Your task to perform on an android device: turn off airplane mode Image 0: 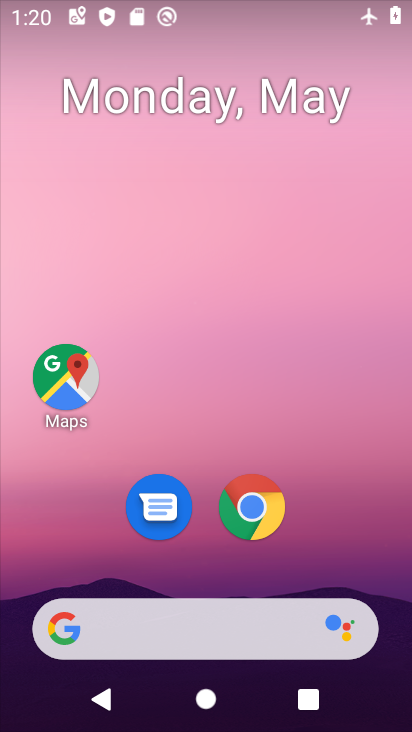
Step 0: drag from (239, 718) to (308, 19)
Your task to perform on an android device: turn off airplane mode Image 1: 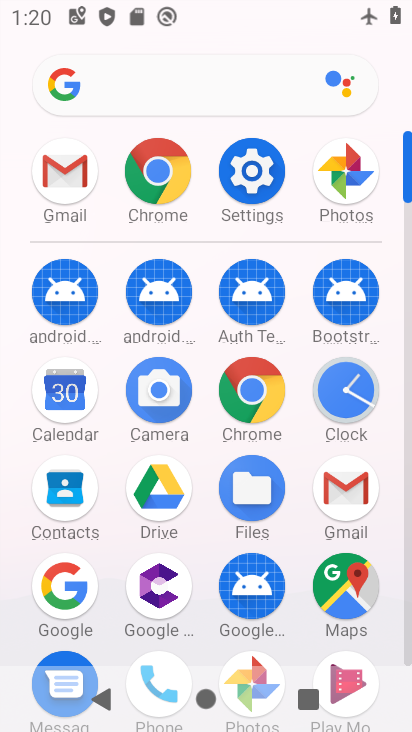
Step 1: click (253, 175)
Your task to perform on an android device: turn off airplane mode Image 2: 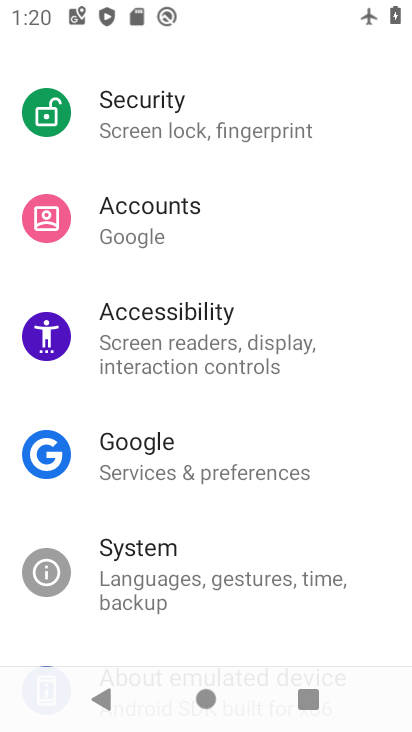
Step 2: drag from (244, 142) to (244, 550)
Your task to perform on an android device: turn off airplane mode Image 3: 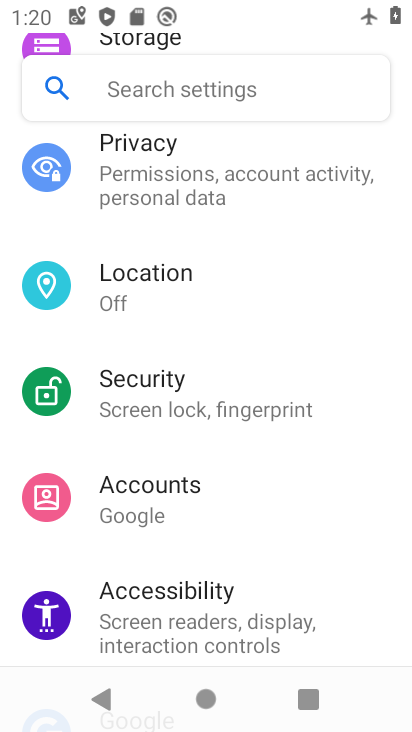
Step 3: drag from (222, 148) to (234, 653)
Your task to perform on an android device: turn off airplane mode Image 4: 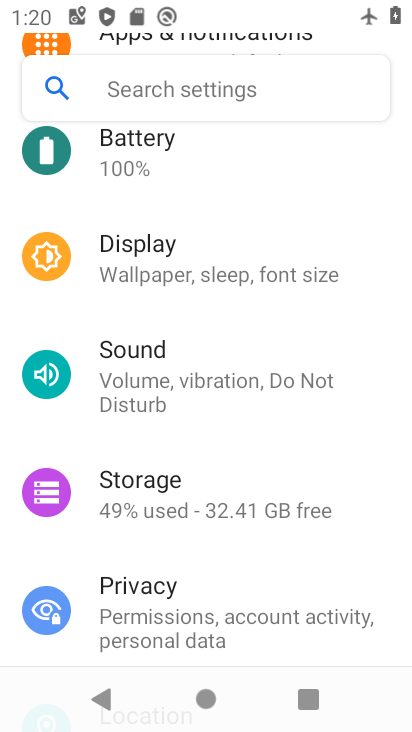
Step 4: drag from (235, 146) to (227, 610)
Your task to perform on an android device: turn off airplane mode Image 5: 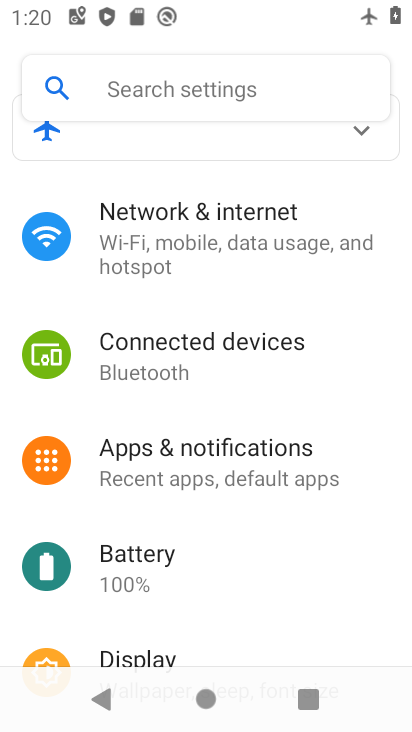
Step 5: click (142, 243)
Your task to perform on an android device: turn off airplane mode Image 6: 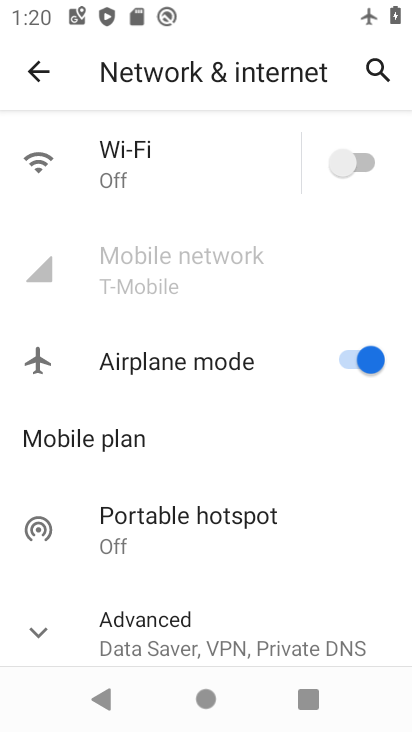
Step 6: drag from (260, 606) to (256, 506)
Your task to perform on an android device: turn off airplane mode Image 7: 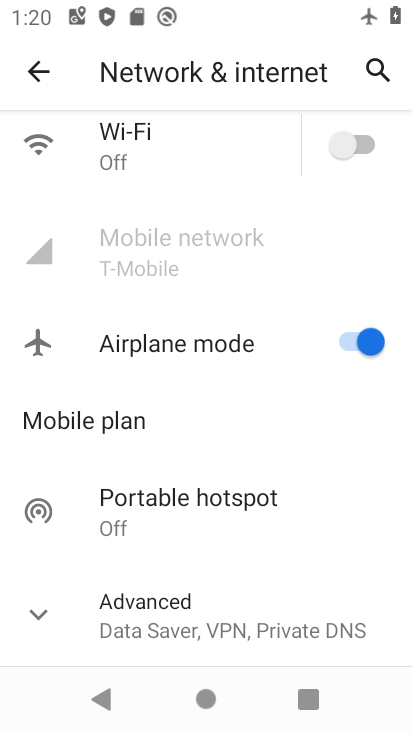
Step 7: click (355, 341)
Your task to perform on an android device: turn off airplane mode Image 8: 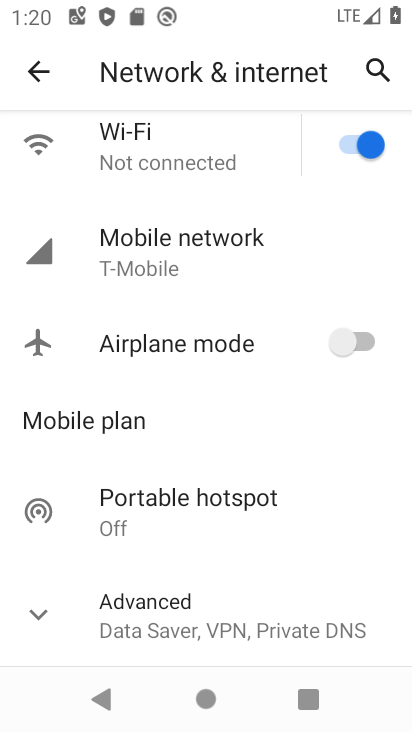
Step 8: task complete